Your task to perform on an android device: Open settings Image 0: 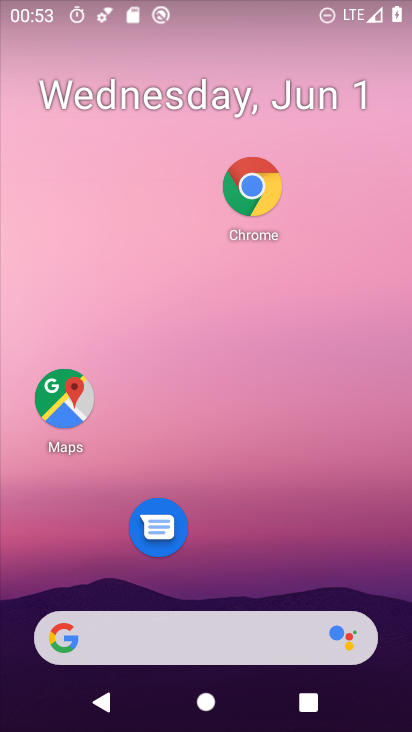
Step 0: drag from (240, 574) to (173, 55)
Your task to perform on an android device: Open settings Image 1: 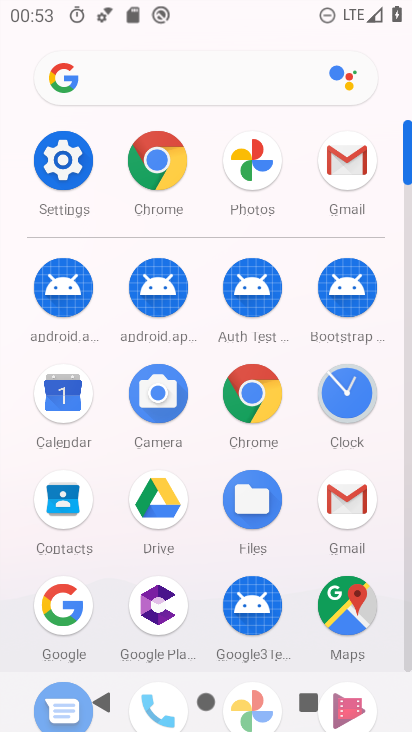
Step 1: click (55, 155)
Your task to perform on an android device: Open settings Image 2: 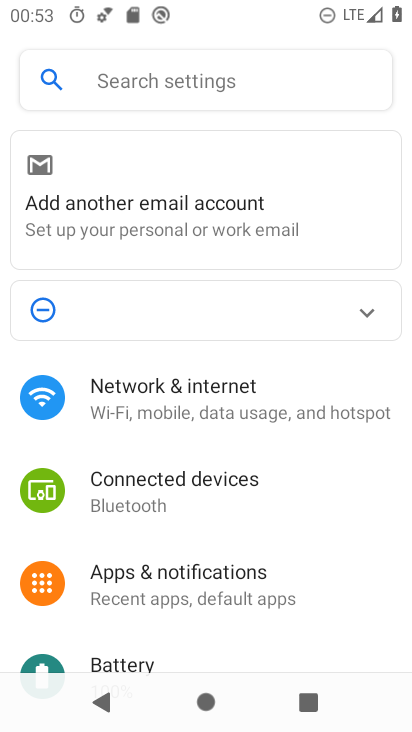
Step 2: task complete